Your task to perform on an android device: Open display settings Image 0: 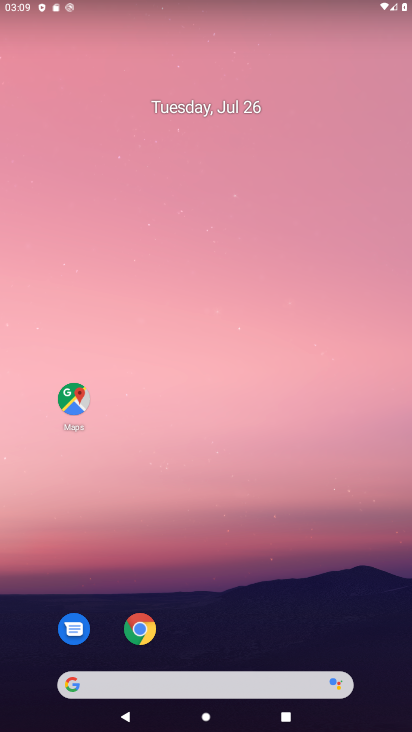
Step 0: drag from (201, 519) to (231, 39)
Your task to perform on an android device: Open display settings Image 1: 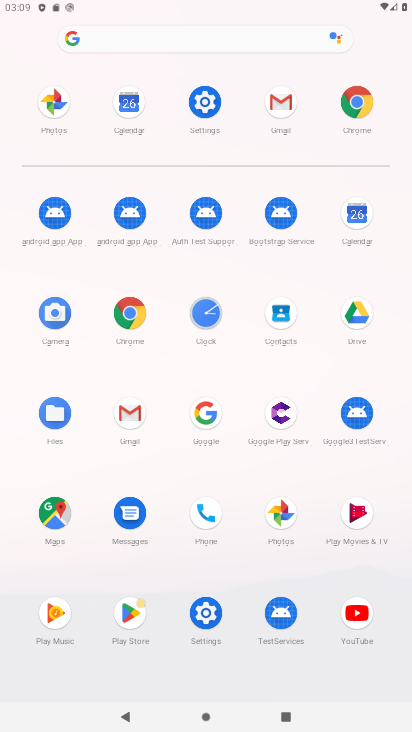
Step 1: click (206, 620)
Your task to perform on an android device: Open display settings Image 2: 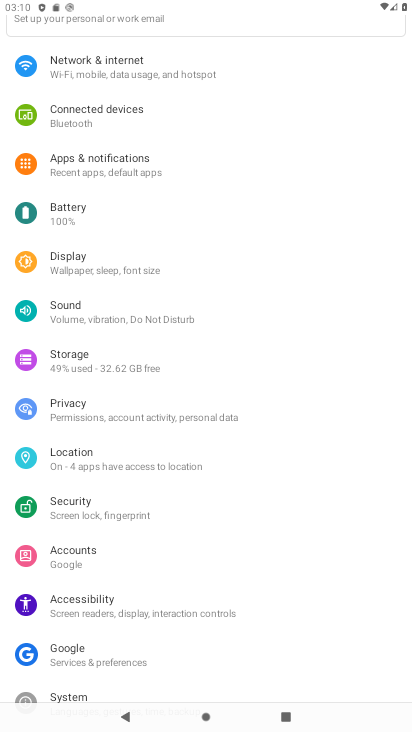
Step 2: click (72, 265)
Your task to perform on an android device: Open display settings Image 3: 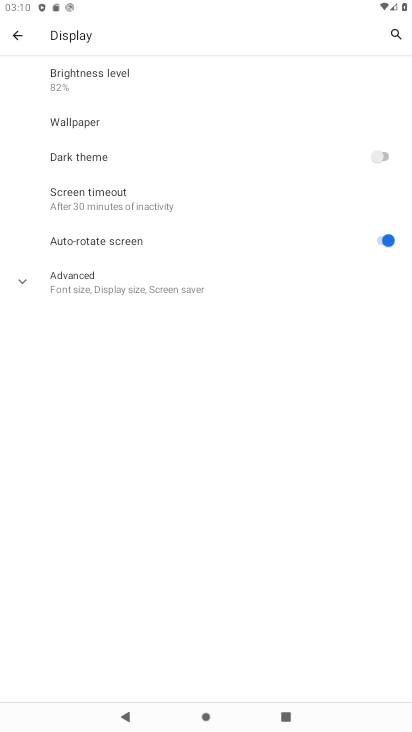
Step 3: task complete